Your task to perform on an android device: Open maps Image 0: 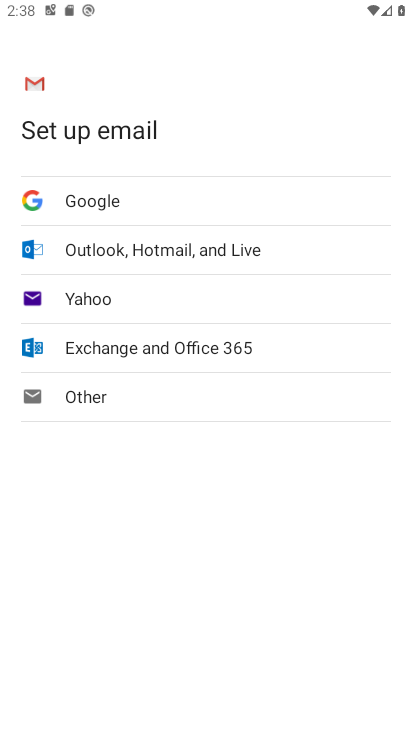
Step 0: press home button
Your task to perform on an android device: Open maps Image 1: 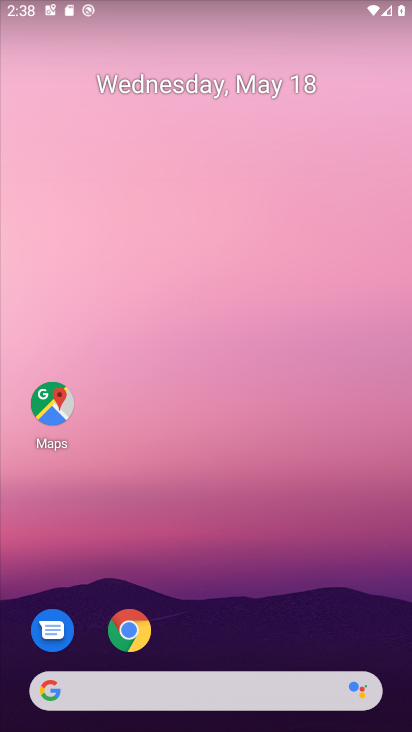
Step 1: click (53, 398)
Your task to perform on an android device: Open maps Image 2: 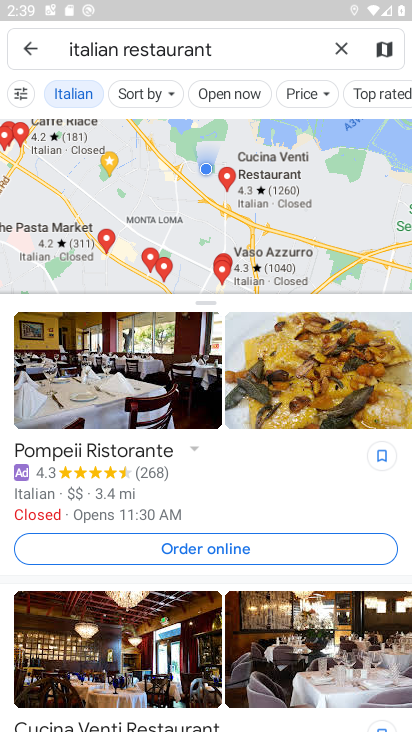
Step 2: click (34, 49)
Your task to perform on an android device: Open maps Image 3: 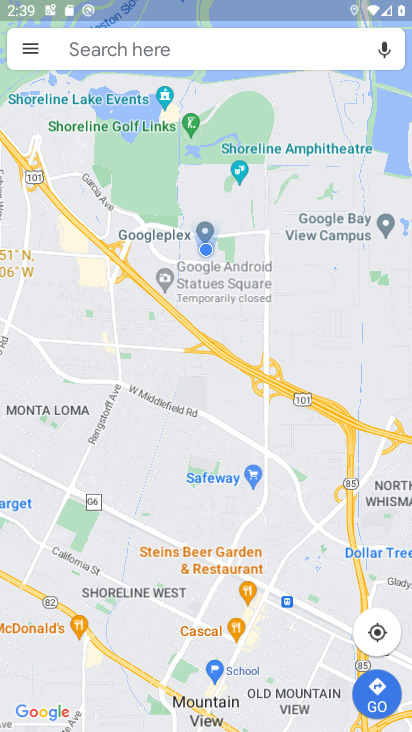
Step 3: task complete